Your task to perform on an android device: refresh tabs in the chrome app Image 0: 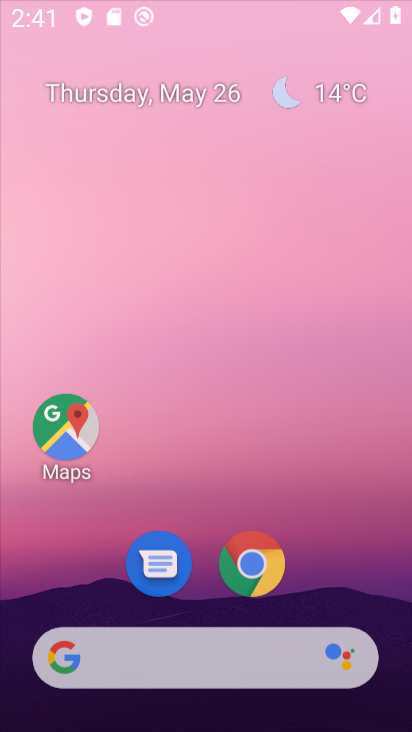
Step 0: drag from (352, 554) to (250, 12)
Your task to perform on an android device: refresh tabs in the chrome app Image 1: 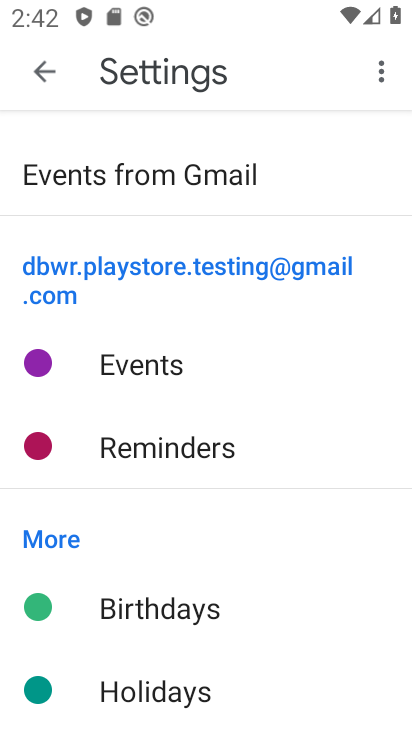
Step 1: press back button
Your task to perform on an android device: refresh tabs in the chrome app Image 2: 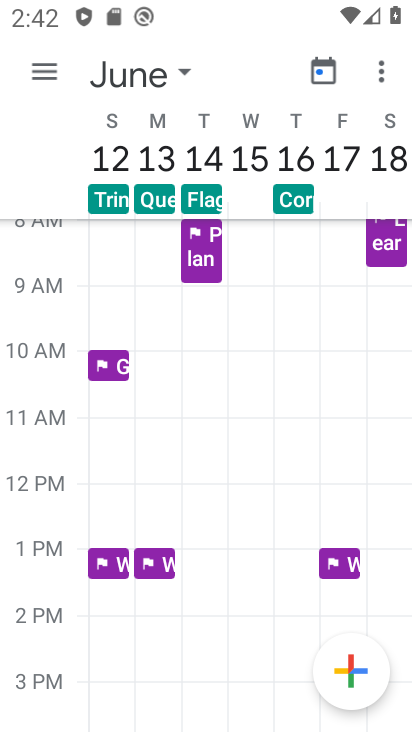
Step 2: press back button
Your task to perform on an android device: refresh tabs in the chrome app Image 3: 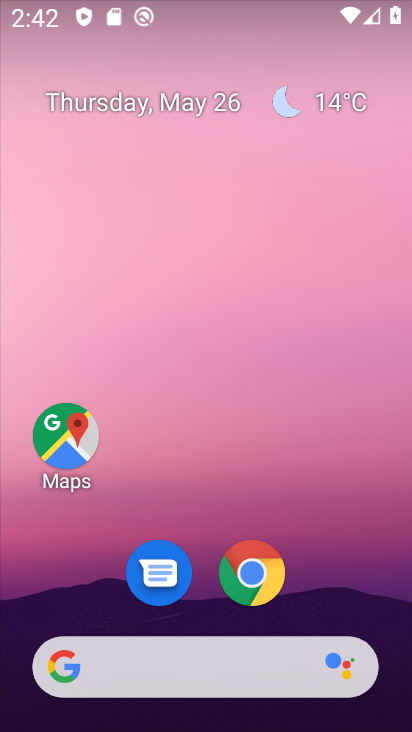
Step 3: drag from (330, 583) to (224, 13)
Your task to perform on an android device: refresh tabs in the chrome app Image 4: 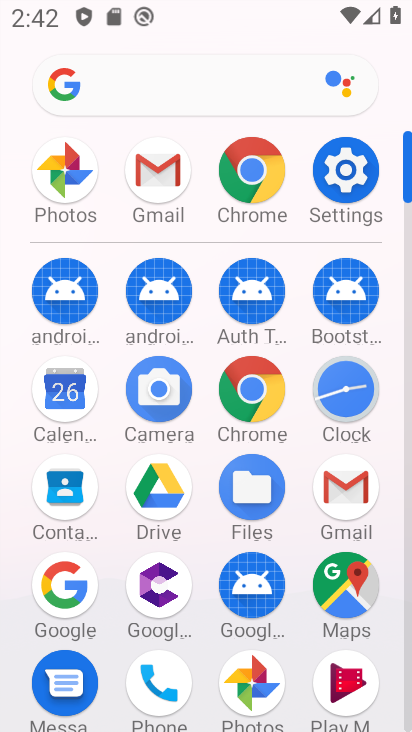
Step 4: click (254, 171)
Your task to perform on an android device: refresh tabs in the chrome app Image 5: 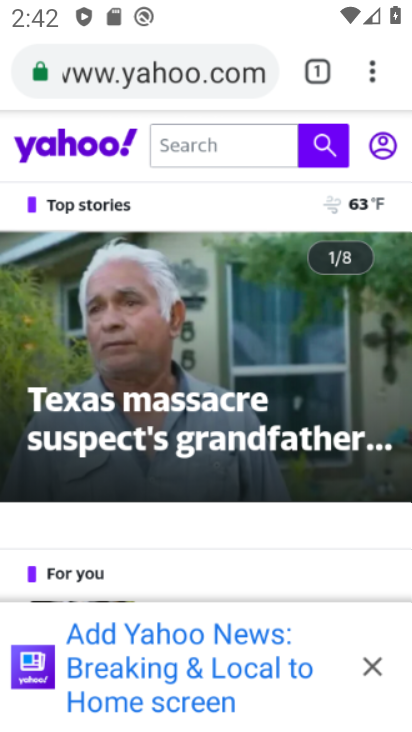
Step 5: click (372, 59)
Your task to perform on an android device: refresh tabs in the chrome app Image 6: 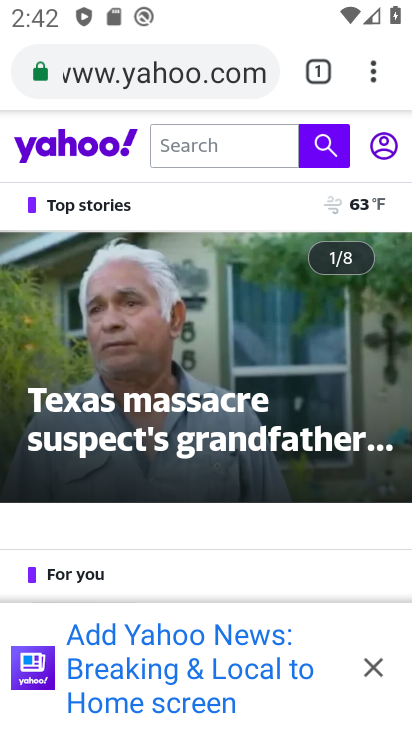
Step 6: task complete